Your task to perform on an android device: check data usage Image 0: 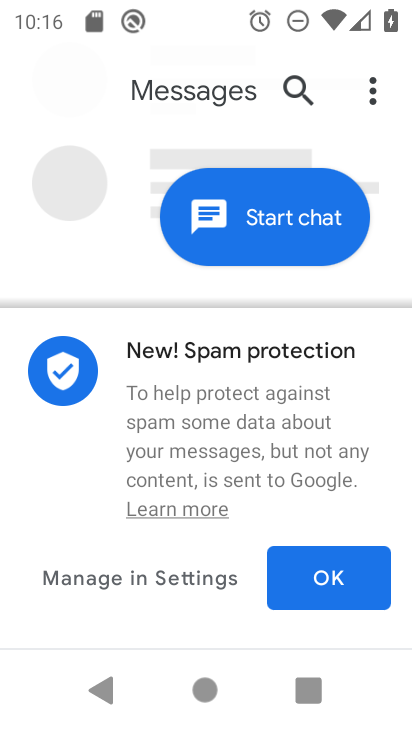
Step 0: press home button
Your task to perform on an android device: check data usage Image 1: 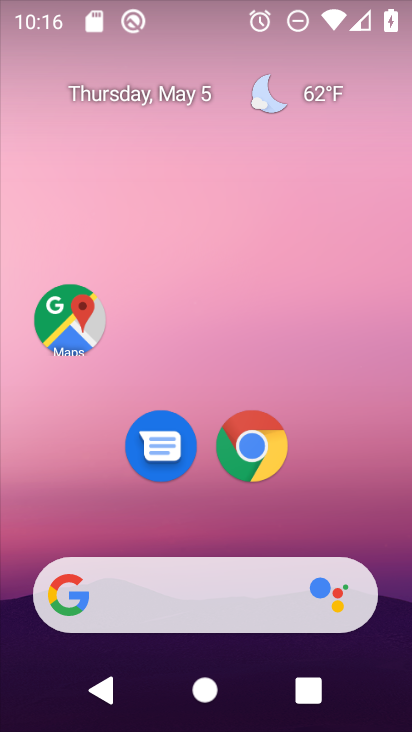
Step 1: drag from (283, 645) to (299, 122)
Your task to perform on an android device: check data usage Image 2: 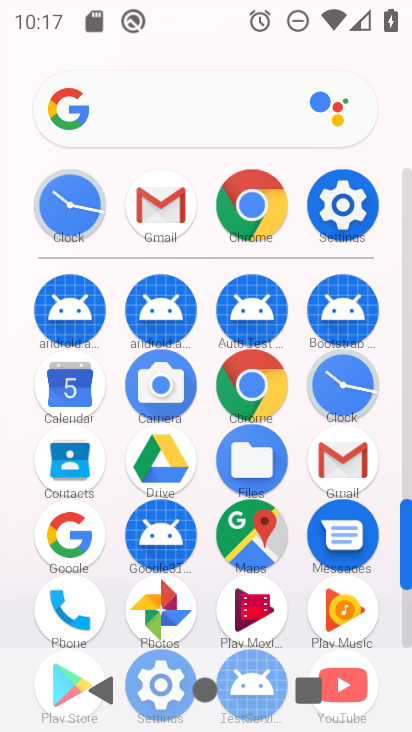
Step 2: click (329, 226)
Your task to perform on an android device: check data usage Image 3: 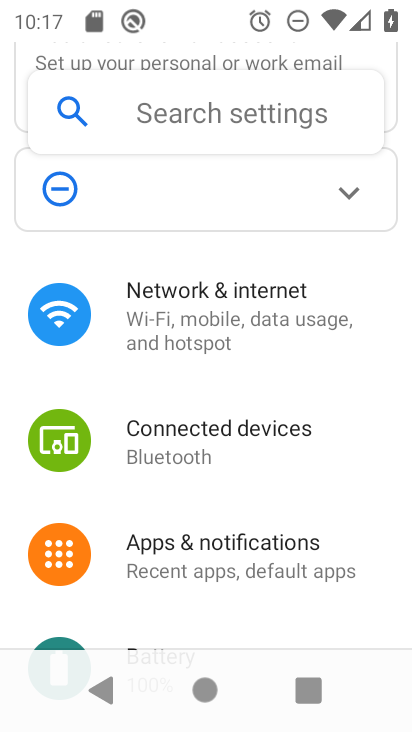
Step 3: drag from (162, 205) to (186, 372)
Your task to perform on an android device: check data usage Image 4: 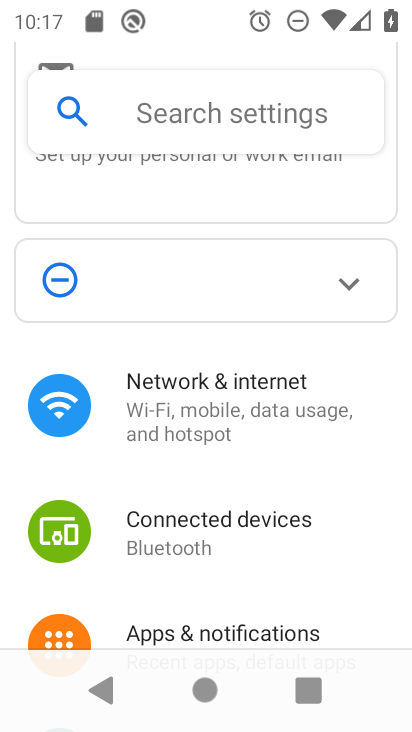
Step 4: click (196, 121)
Your task to perform on an android device: check data usage Image 5: 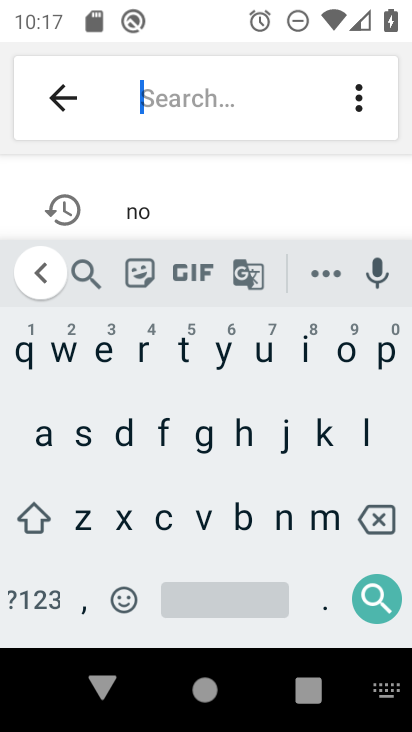
Step 5: click (126, 438)
Your task to perform on an android device: check data usage Image 6: 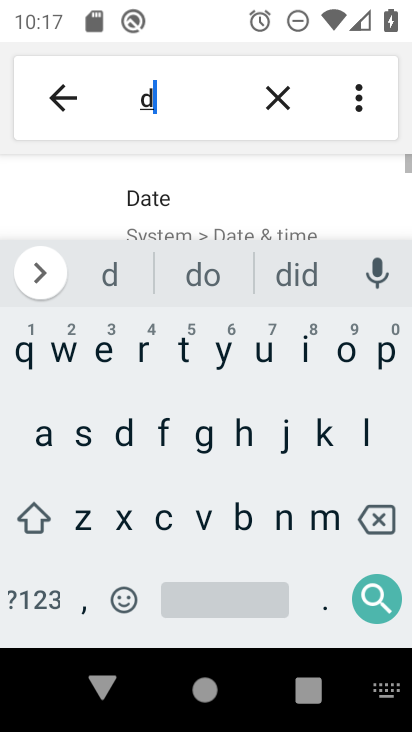
Step 6: click (38, 428)
Your task to perform on an android device: check data usage Image 7: 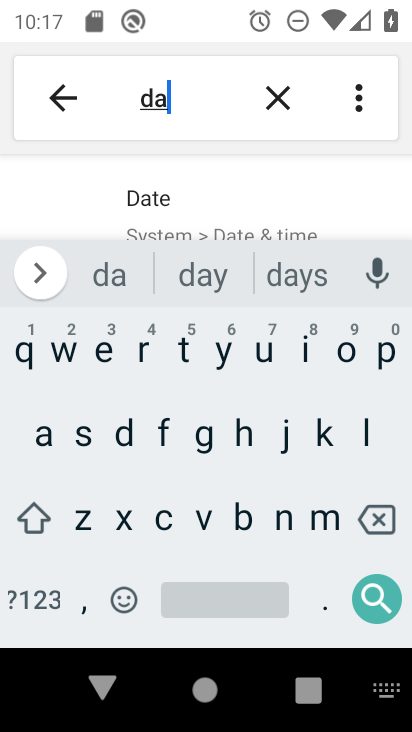
Step 7: click (183, 362)
Your task to perform on an android device: check data usage Image 8: 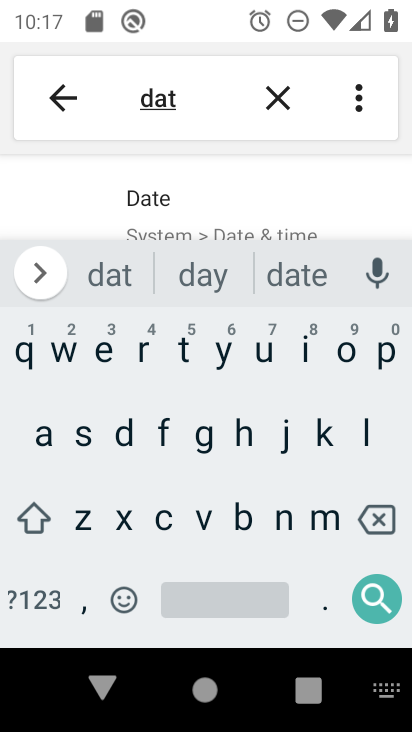
Step 8: click (48, 433)
Your task to perform on an android device: check data usage Image 9: 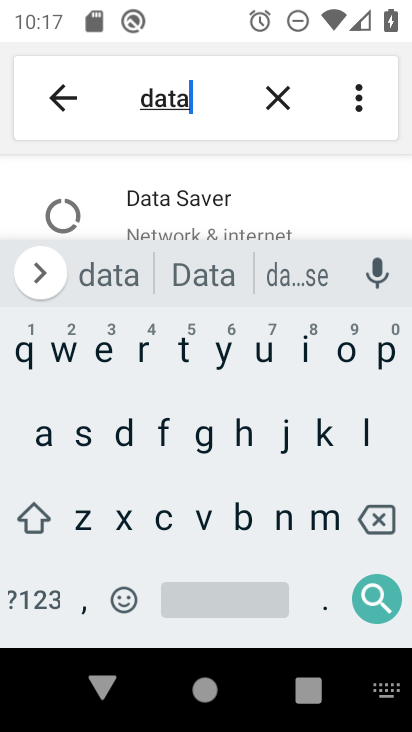
Step 9: click (189, 607)
Your task to perform on an android device: check data usage Image 10: 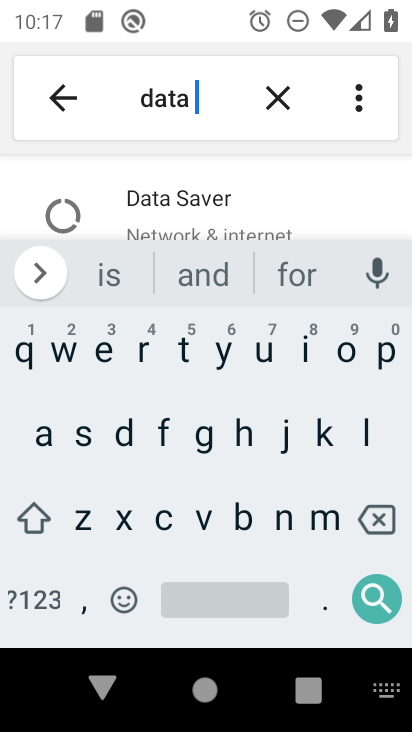
Step 10: click (260, 359)
Your task to perform on an android device: check data usage Image 11: 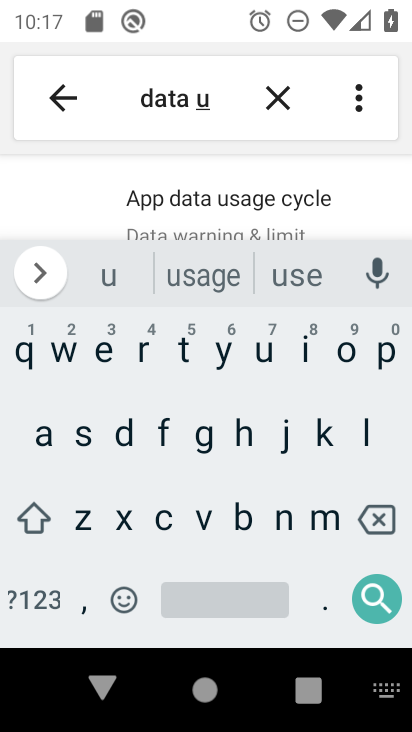
Step 11: click (77, 441)
Your task to perform on an android device: check data usage Image 12: 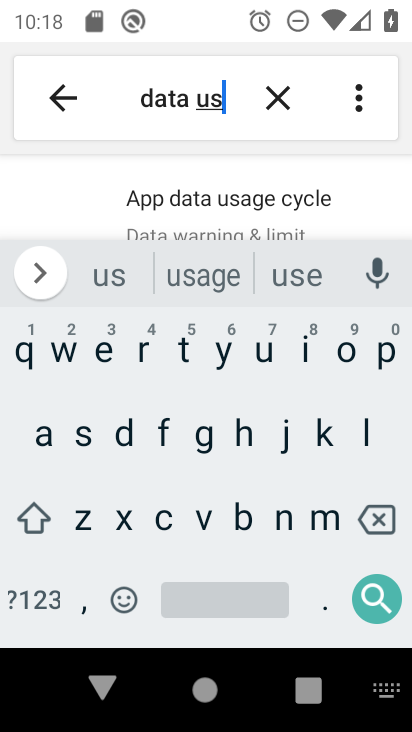
Step 12: click (214, 213)
Your task to perform on an android device: check data usage Image 13: 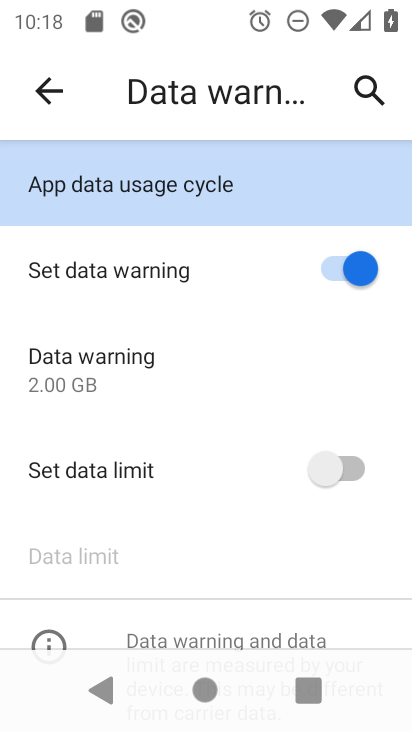
Step 13: click (190, 189)
Your task to perform on an android device: check data usage Image 14: 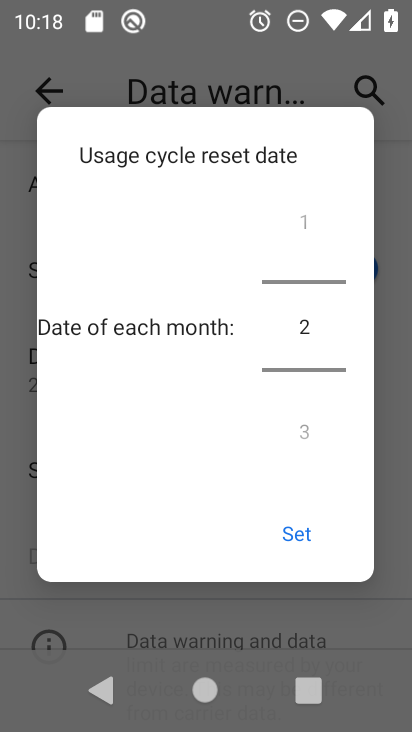
Step 14: task complete